Your task to perform on an android device: Search for pizza restaurants on Maps Image 0: 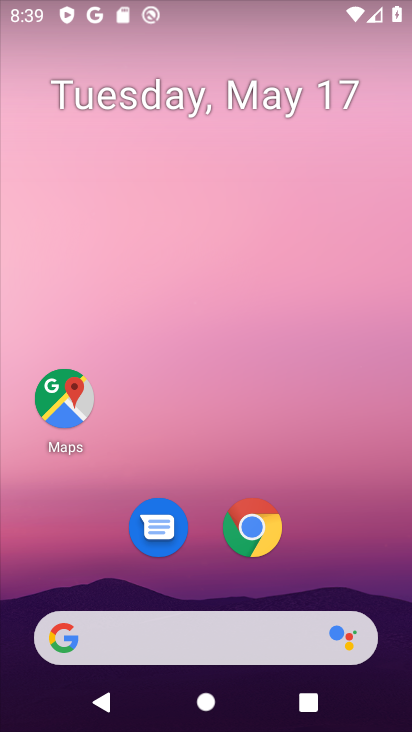
Step 0: drag from (187, 590) to (144, 46)
Your task to perform on an android device: Search for pizza restaurants on Maps Image 1: 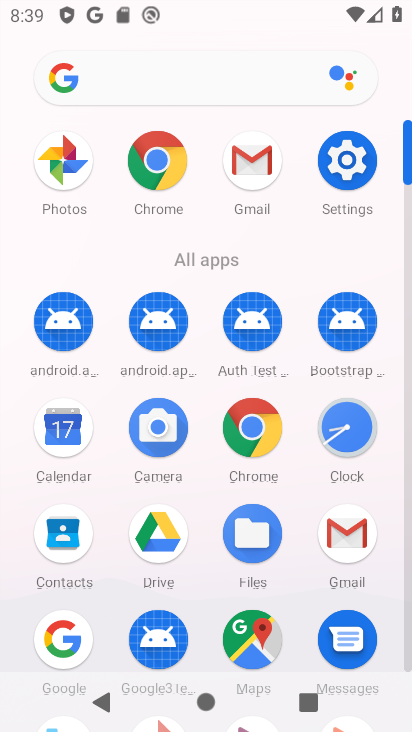
Step 1: click (262, 650)
Your task to perform on an android device: Search for pizza restaurants on Maps Image 2: 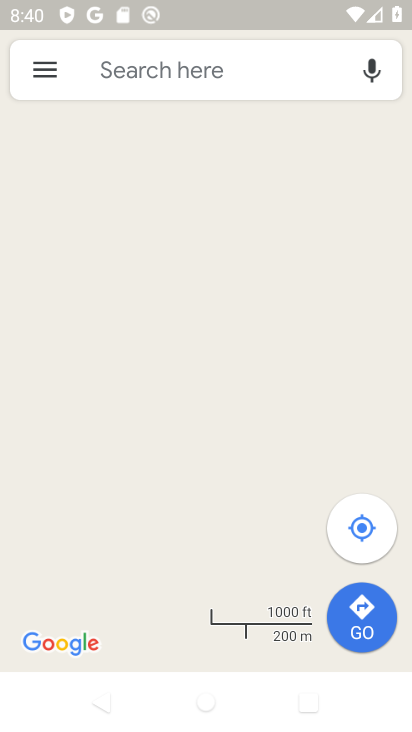
Step 2: click (107, 76)
Your task to perform on an android device: Search for pizza restaurants on Maps Image 3: 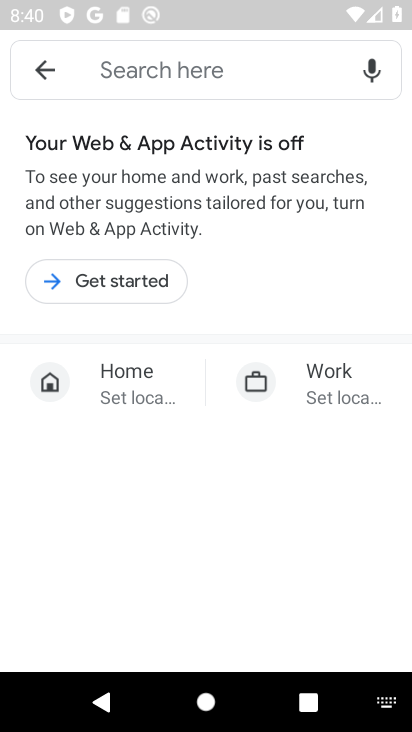
Step 3: click (134, 271)
Your task to perform on an android device: Search for pizza restaurants on Maps Image 4: 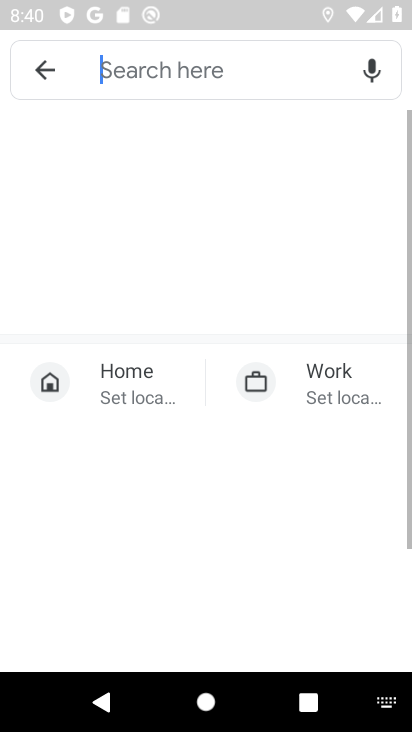
Step 4: click (126, 292)
Your task to perform on an android device: Search for pizza restaurants on Maps Image 5: 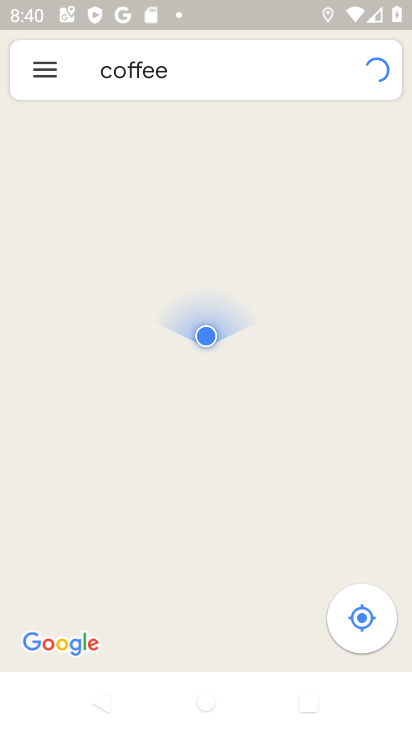
Step 5: click (171, 89)
Your task to perform on an android device: Search for pizza restaurants on Maps Image 6: 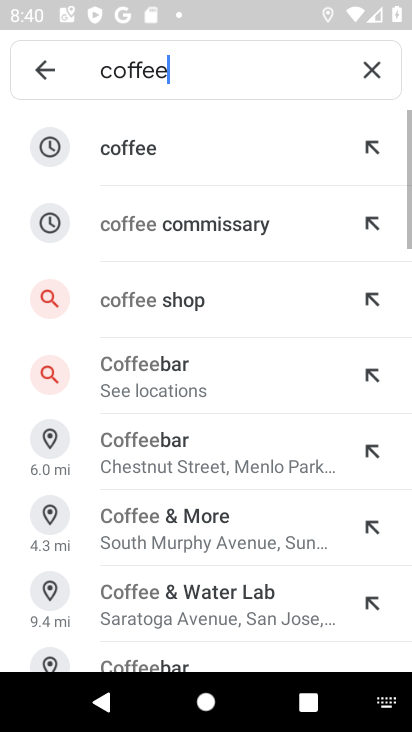
Step 6: click (370, 65)
Your task to perform on an android device: Search for pizza restaurants on Maps Image 7: 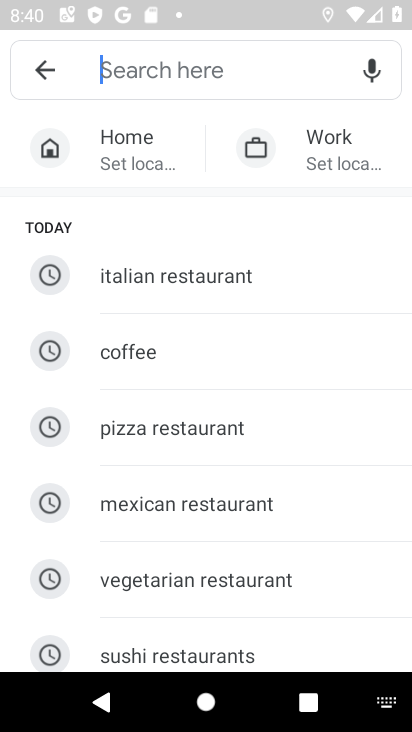
Step 7: click (114, 443)
Your task to perform on an android device: Search for pizza restaurants on Maps Image 8: 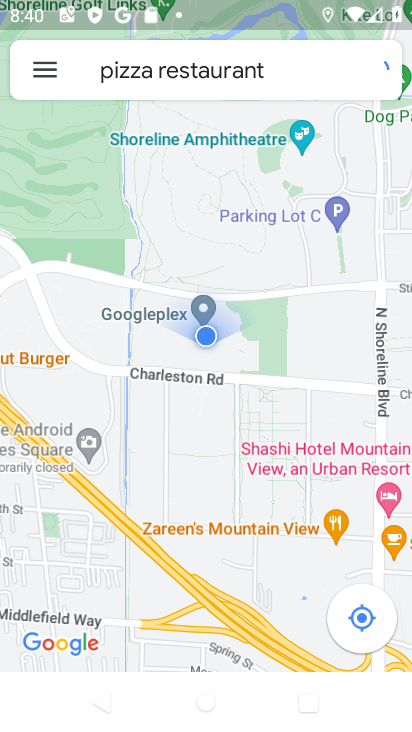
Step 8: task complete